Your task to perform on an android device: Go to sound settings Image 0: 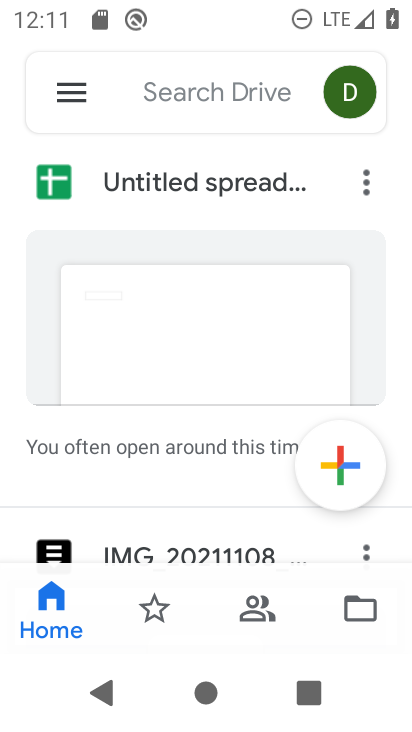
Step 0: press back button
Your task to perform on an android device: Go to sound settings Image 1: 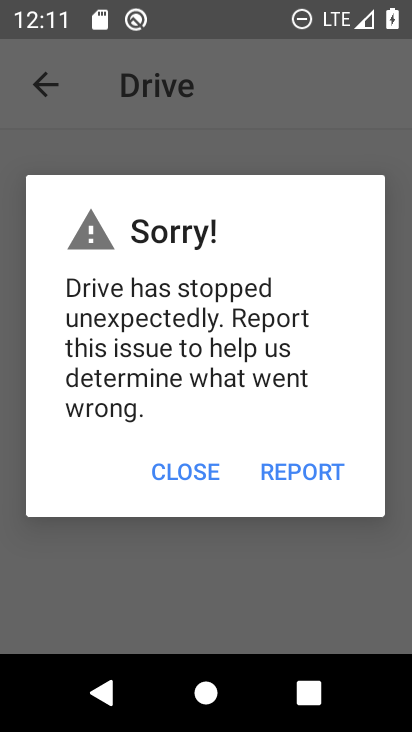
Step 1: press back button
Your task to perform on an android device: Go to sound settings Image 2: 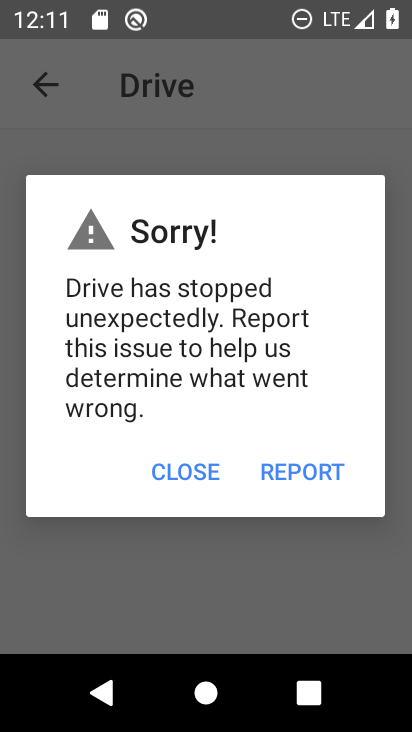
Step 2: press home button
Your task to perform on an android device: Go to sound settings Image 3: 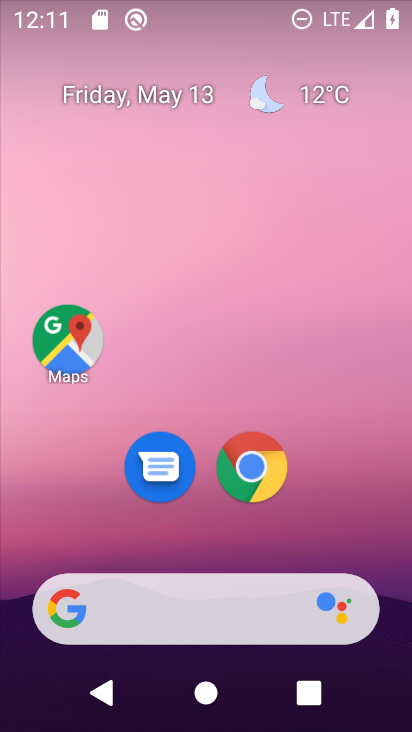
Step 3: drag from (344, 519) to (289, 29)
Your task to perform on an android device: Go to sound settings Image 4: 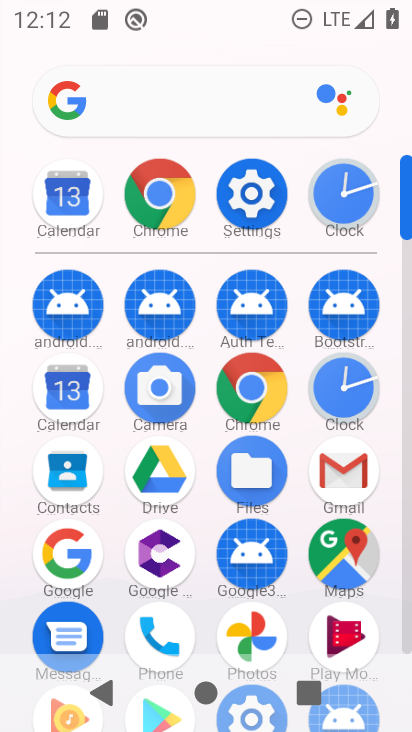
Step 4: click (249, 184)
Your task to perform on an android device: Go to sound settings Image 5: 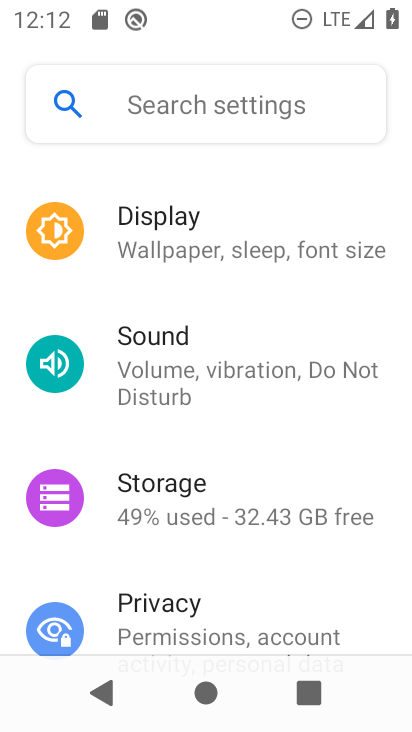
Step 5: click (205, 362)
Your task to perform on an android device: Go to sound settings Image 6: 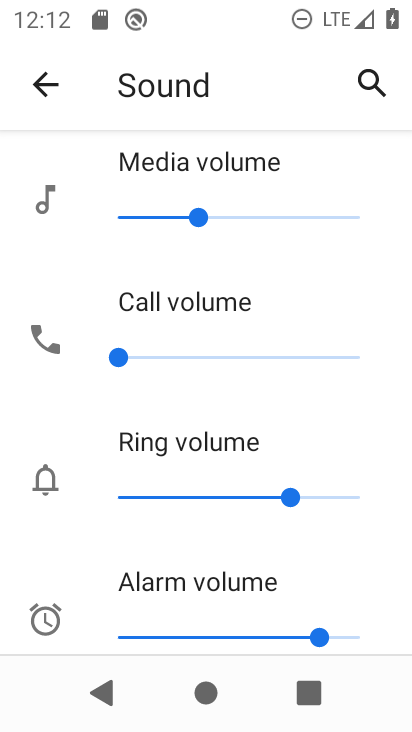
Step 6: task complete